Your task to perform on an android device: change notification settings in the gmail app Image 0: 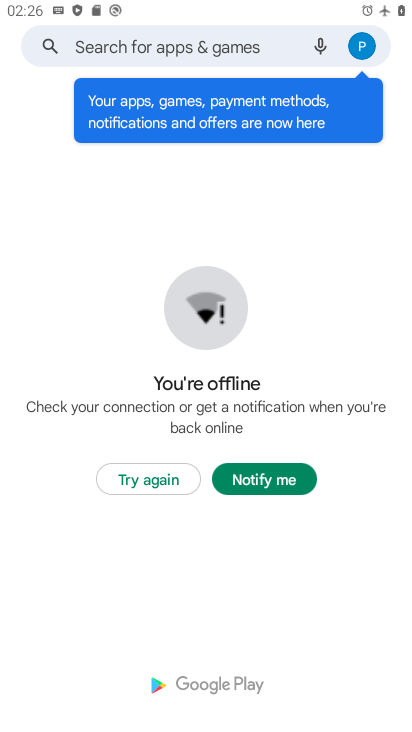
Step 0: press home button
Your task to perform on an android device: change notification settings in the gmail app Image 1: 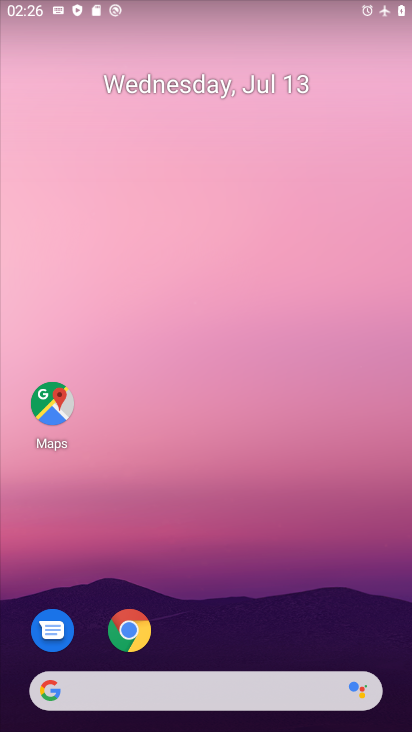
Step 1: drag from (208, 630) to (208, 193)
Your task to perform on an android device: change notification settings in the gmail app Image 2: 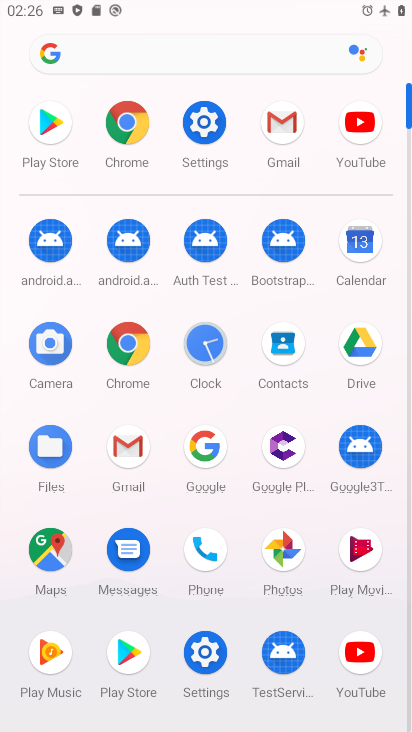
Step 2: click (274, 141)
Your task to perform on an android device: change notification settings in the gmail app Image 3: 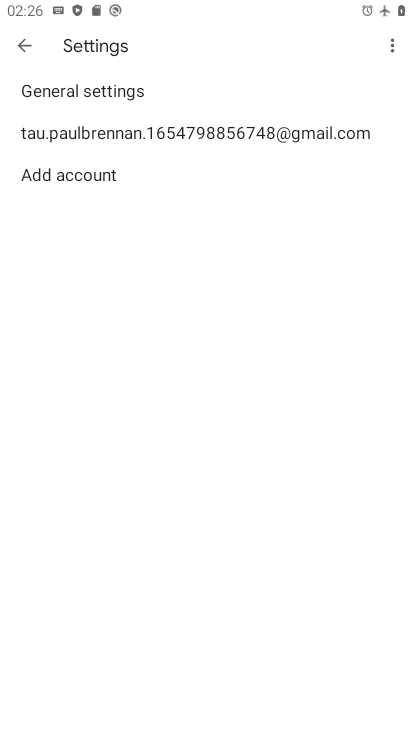
Step 3: click (274, 141)
Your task to perform on an android device: change notification settings in the gmail app Image 4: 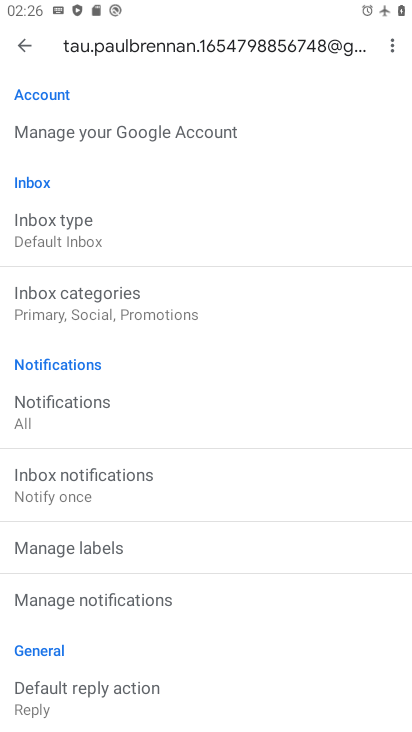
Step 4: click (138, 583)
Your task to perform on an android device: change notification settings in the gmail app Image 5: 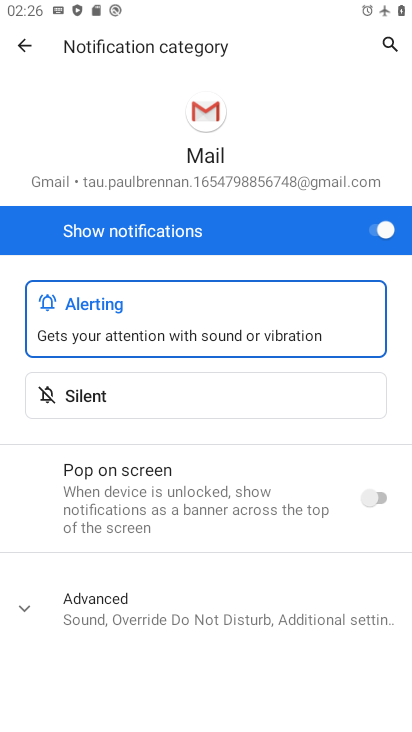
Step 5: click (363, 229)
Your task to perform on an android device: change notification settings in the gmail app Image 6: 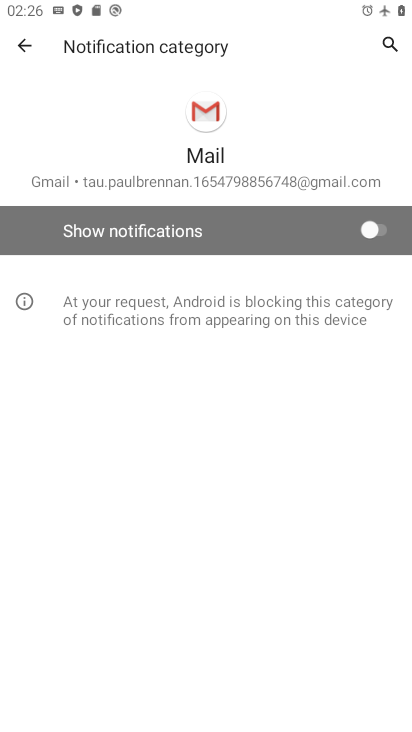
Step 6: task complete